Your task to perform on an android device: Go to CNN.com Image 0: 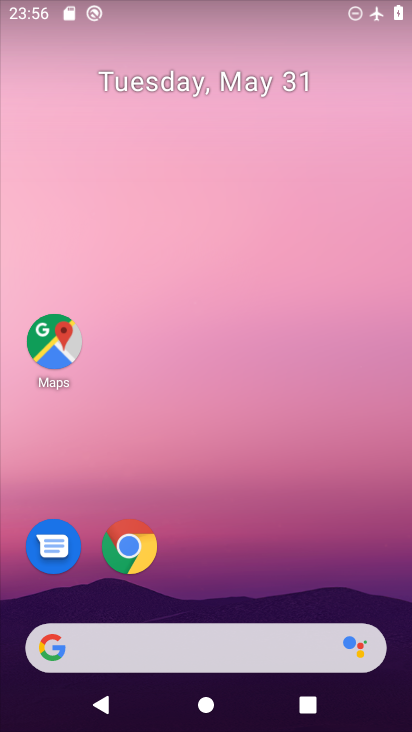
Step 0: click (129, 539)
Your task to perform on an android device: Go to CNN.com Image 1: 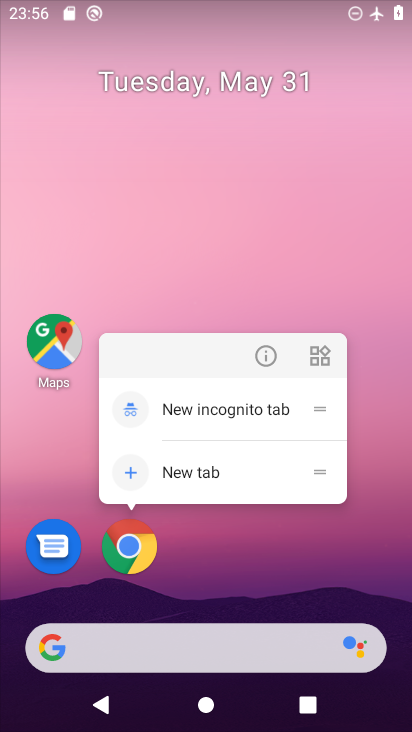
Step 1: click (126, 548)
Your task to perform on an android device: Go to CNN.com Image 2: 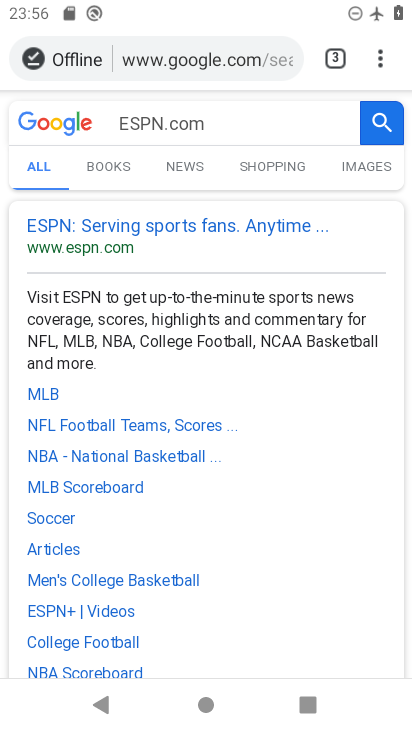
Step 2: click (292, 50)
Your task to perform on an android device: Go to CNN.com Image 3: 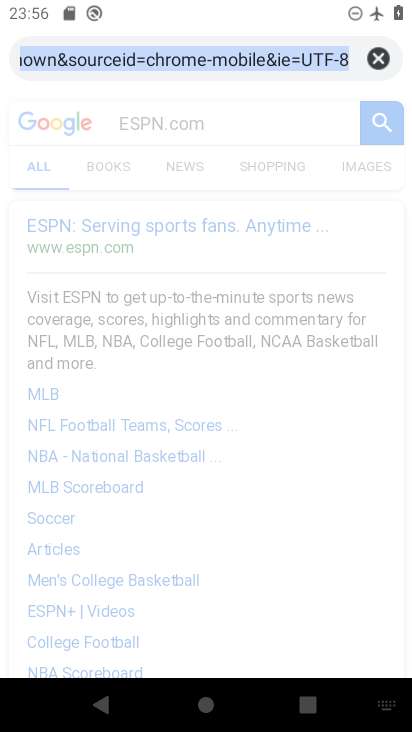
Step 3: click (373, 55)
Your task to perform on an android device: Go to CNN.com Image 4: 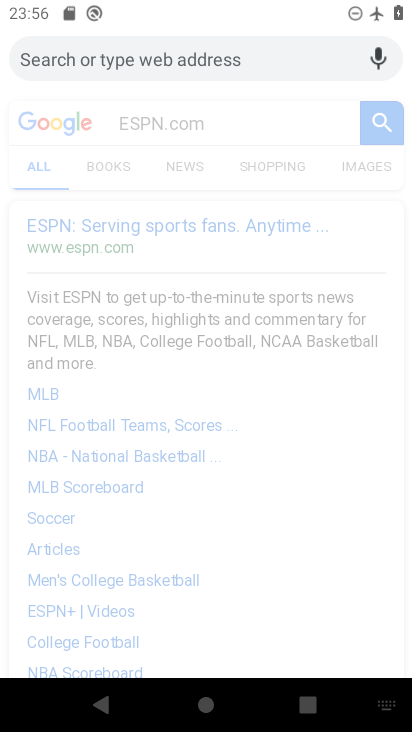
Step 4: type "CNN.com"
Your task to perform on an android device: Go to CNN.com Image 5: 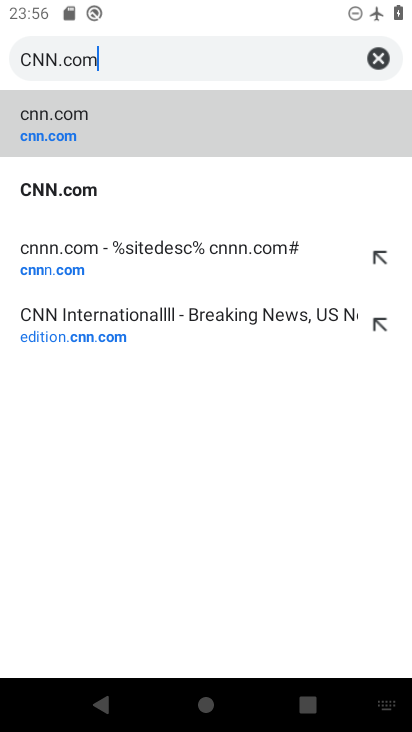
Step 5: click (87, 188)
Your task to perform on an android device: Go to CNN.com Image 6: 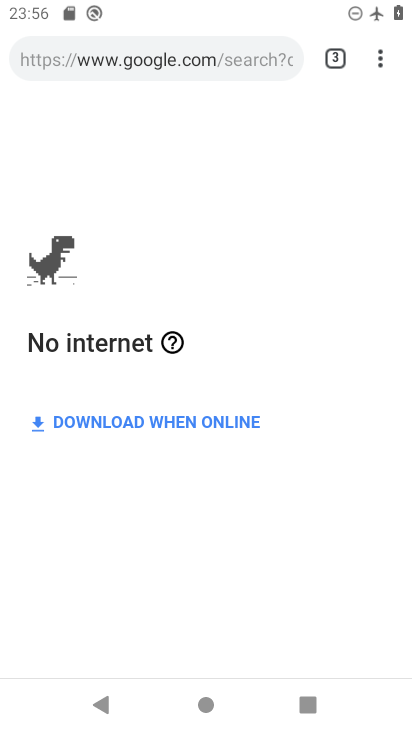
Step 6: task complete